Your task to perform on an android device: allow cookies in the chrome app Image 0: 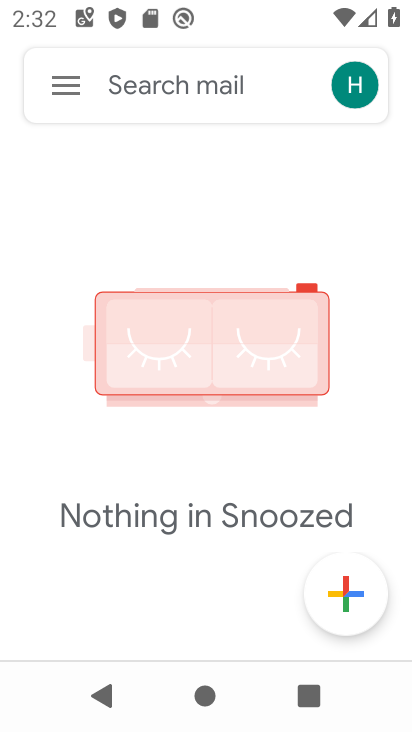
Step 0: press home button
Your task to perform on an android device: allow cookies in the chrome app Image 1: 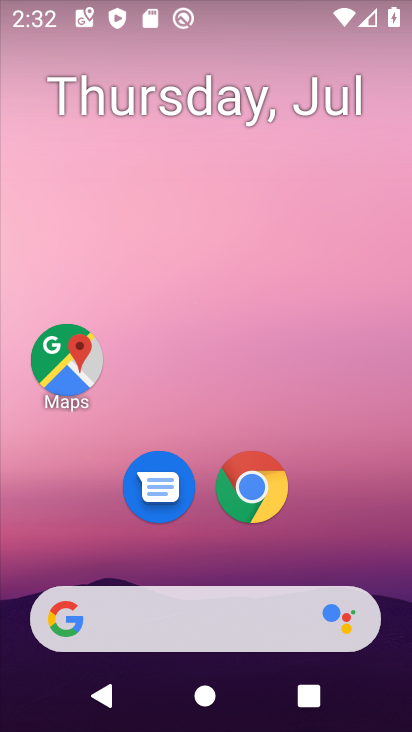
Step 1: drag from (368, 544) to (372, 191)
Your task to perform on an android device: allow cookies in the chrome app Image 2: 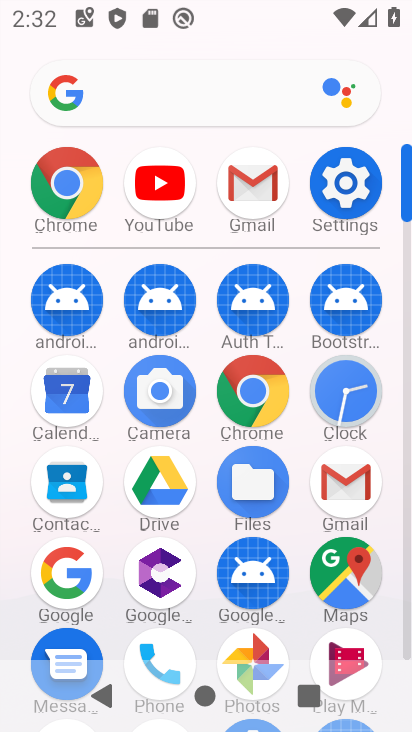
Step 2: click (274, 405)
Your task to perform on an android device: allow cookies in the chrome app Image 3: 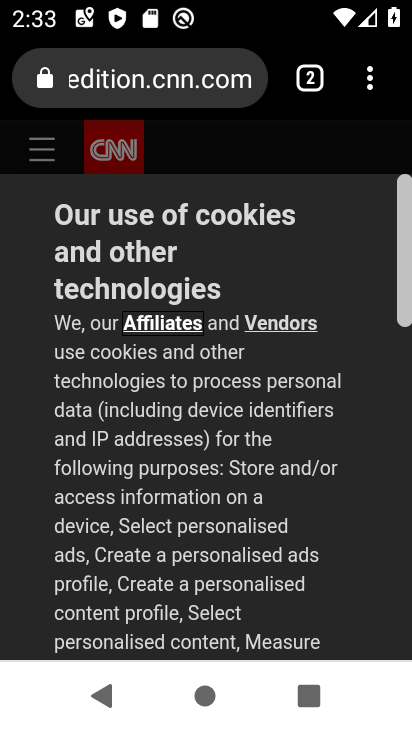
Step 3: click (366, 91)
Your task to perform on an android device: allow cookies in the chrome app Image 4: 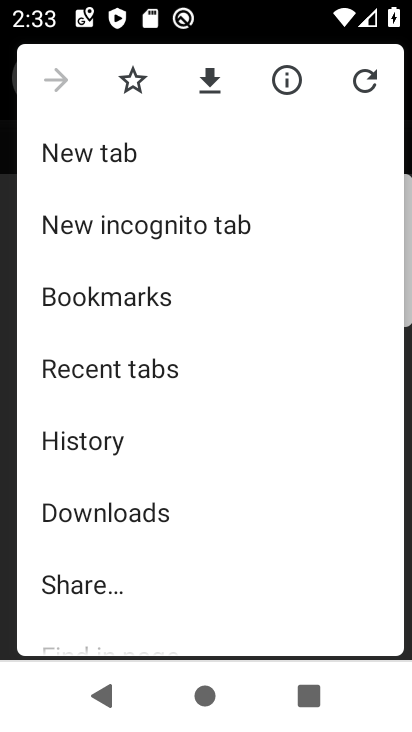
Step 4: drag from (332, 409) to (334, 291)
Your task to perform on an android device: allow cookies in the chrome app Image 5: 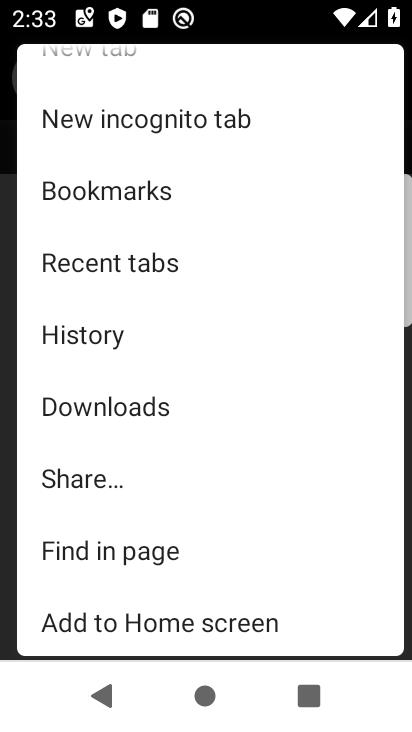
Step 5: drag from (316, 487) to (316, 353)
Your task to perform on an android device: allow cookies in the chrome app Image 6: 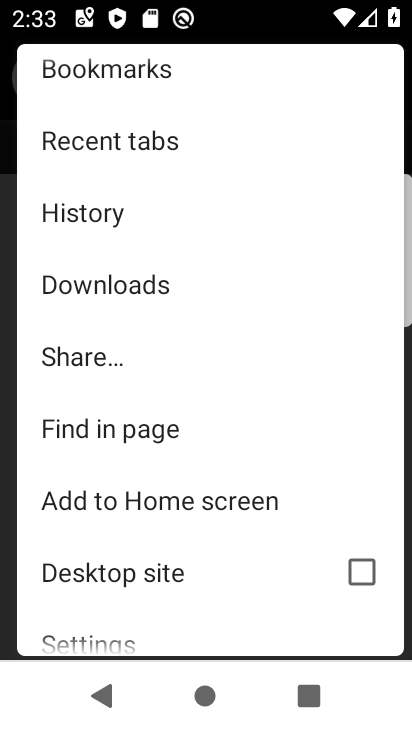
Step 6: drag from (283, 556) to (297, 369)
Your task to perform on an android device: allow cookies in the chrome app Image 7: 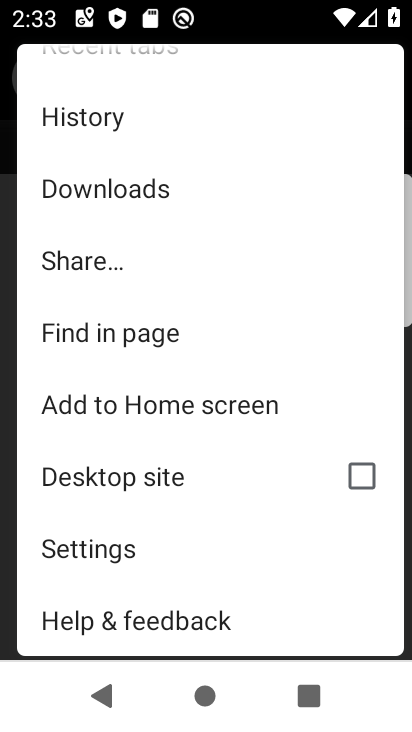
Step 7: drag from (290, 270) to (291, 333)
Your task to perform on an android device: allow cookies in the chrome app Image 8: 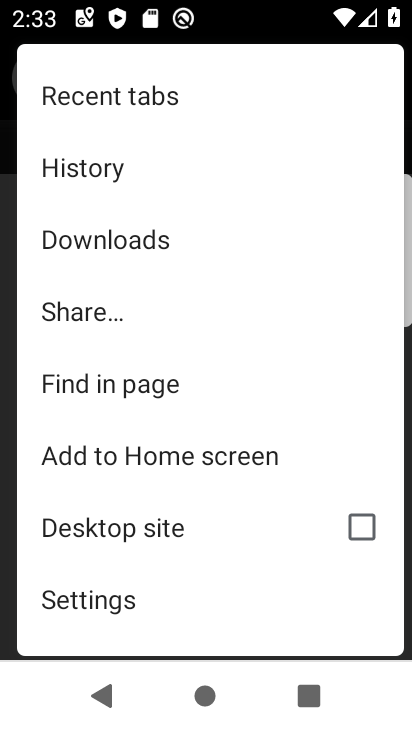
Step 8: click (176, 598)
Your task to perform on an android device: allow cookies in the chrome app Image 9: 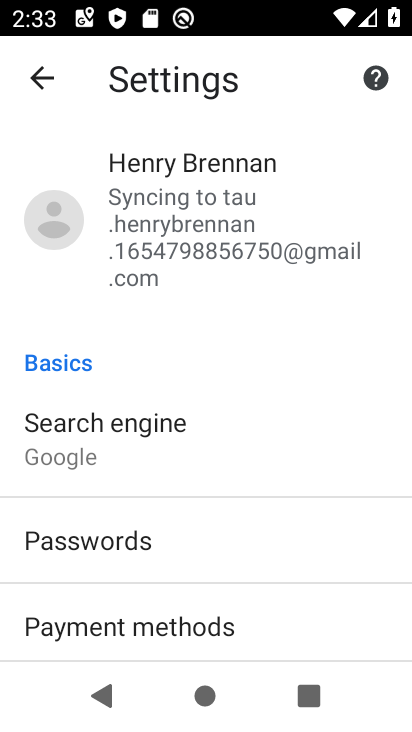
Step 9: drag from (306, 539) to (301, 380)
Your task to perform on an android device: allow cookies in the chrome app Image 10: 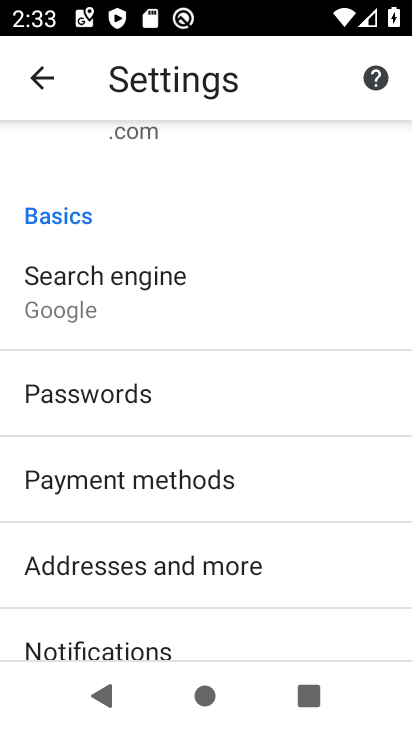
Step 10: drag from (322, 515) to (325, 395)
Your task to perform on an android device: allow cookies in the chrome app Image 11: 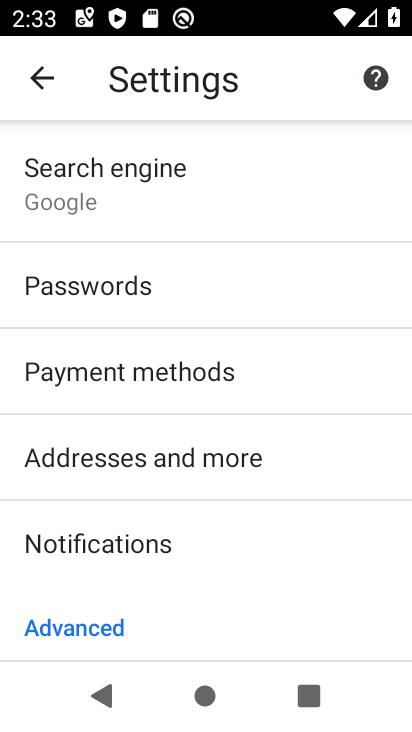
Step 11: drag from (323, 507) to (323, 380)
Your task to perform on an android device: allow cookies in the chrome app Image 12: 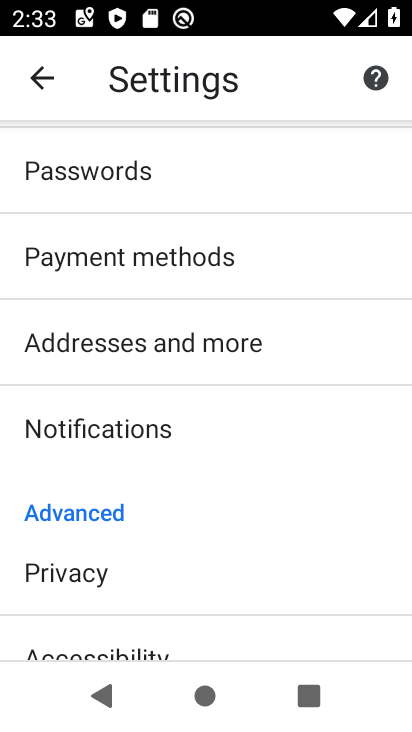
Step 12: drag from (324, 511) to (326, 379)
Your task to perform on an android device: allow cookies in the chrome app Image 13: 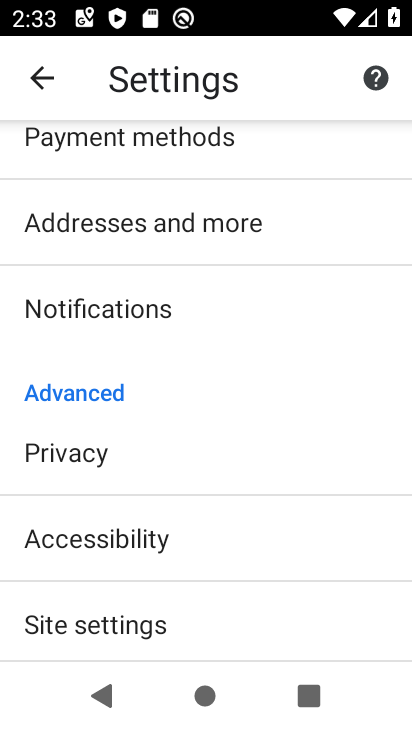
Step 13: drag from (288, 512) to (288, 391)
Your task to perform on an android device: allow cookies in the chrome app Image 14: 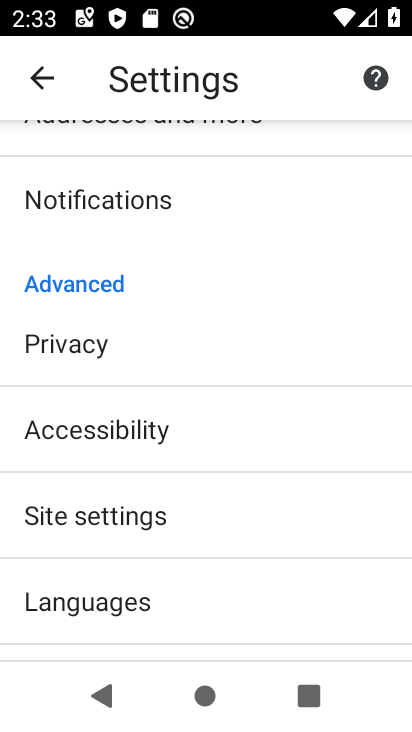
Step 14: click (277, 521)
Your task to perform on an android device: allow cookies in the chrome app Image 15: 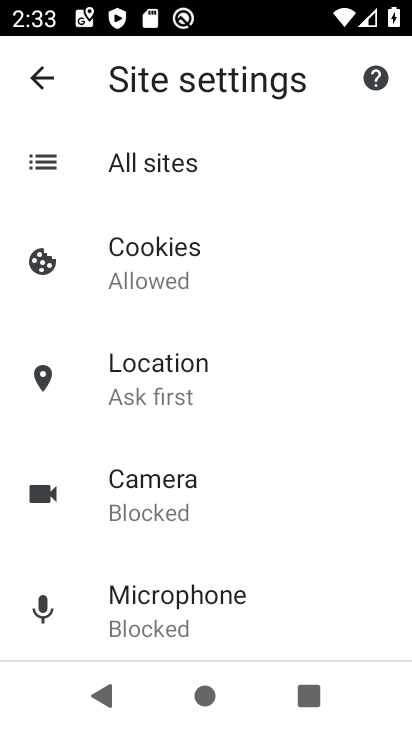
Step 15: click (180, 271)
Your task to perform on an android device: allow cookies in the chrome app Image 16: 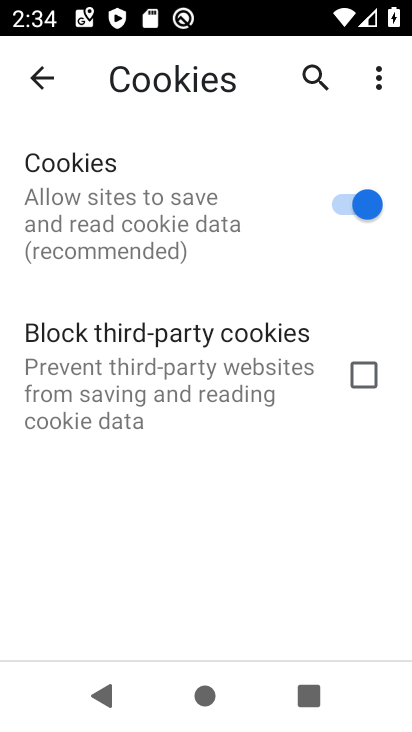
Step 16: task complete